Your task to perform on an android device: Check the news Image 0: 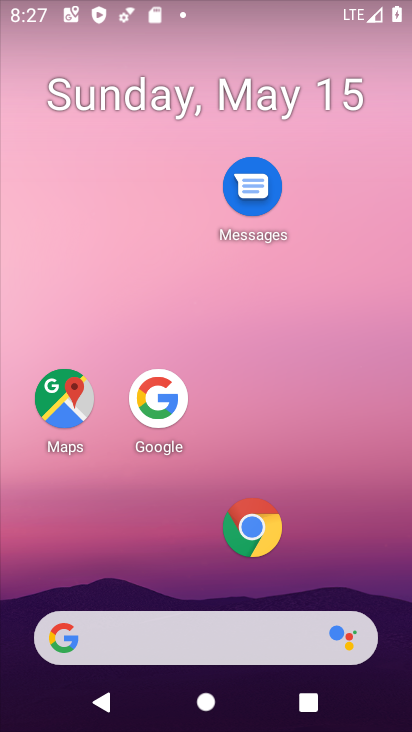
Step 0: press home button
Your task to perform on an android device: Check the news Image 1: 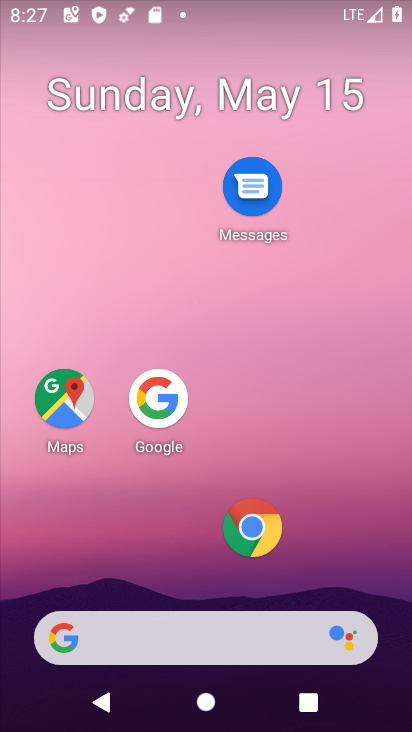
Step 1: click (71, 640)
Your task to perform on an android device: Check the news Image 2: 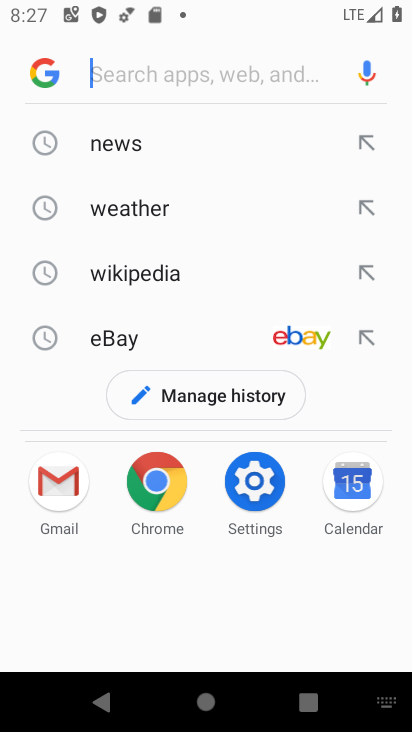
Step 2: click (129, 141)
Your task to perform on an android device: Check the news Image 3: 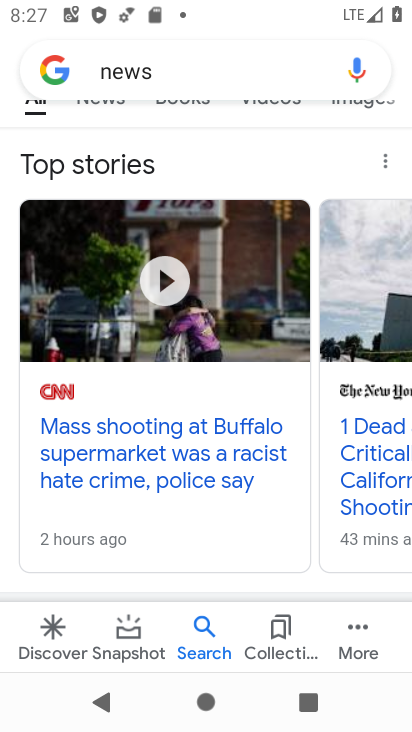
Step 3: drag from (240, 183) to (179, 365)
Your task to perform on an android device: Check the news Image 4: 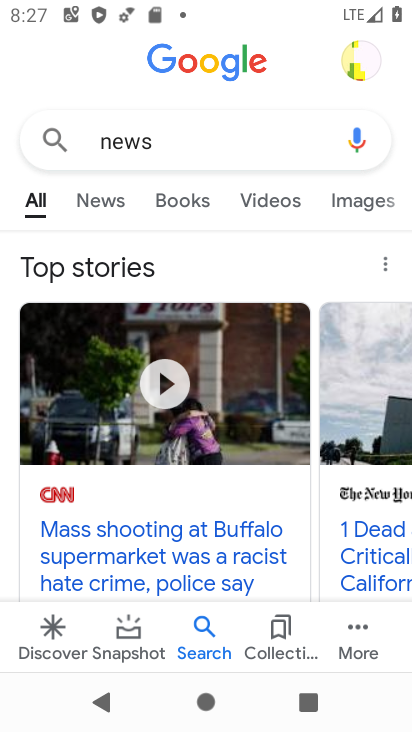
Step 4: click (112, 198)
Your task to perform on an android device: Check the news Image 5: 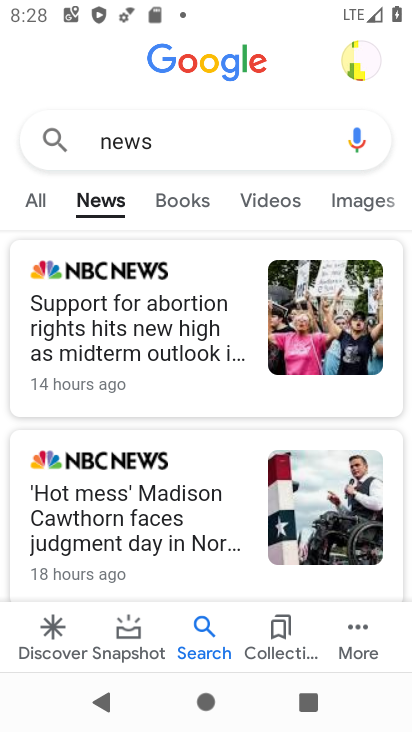
Step 5: task complete